Your task to perform on an android device: see tabs open on other devices in the chrome app Image 0: 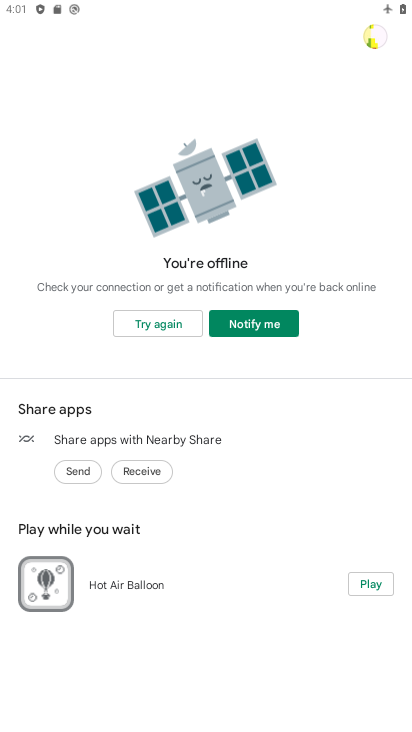
Step 0: press home button
Your task to perform on an android device: see tabs open on other devices in the chrome app Image 1: 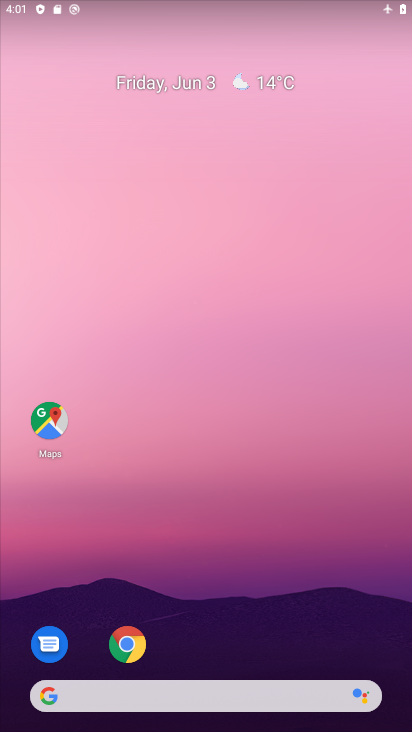
Step 1: click (126, 650)
Your task to perform on an android device: see tabs open on other devices in the chrome app Image 2: 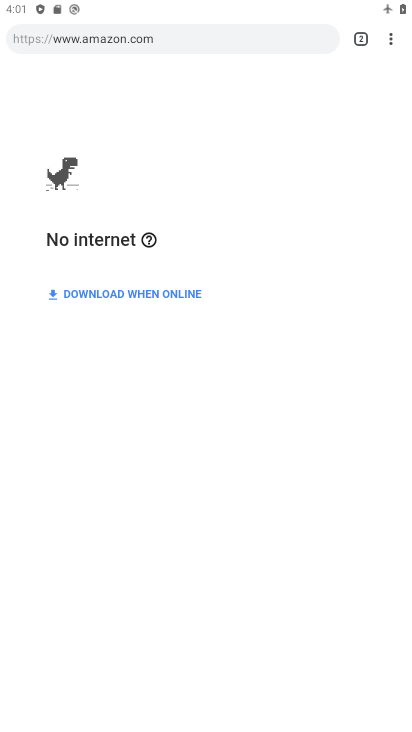
Step 2: click (392, 31)
Your task to perform on an android device: see tabs open on other devices in the chrome app Image 3: 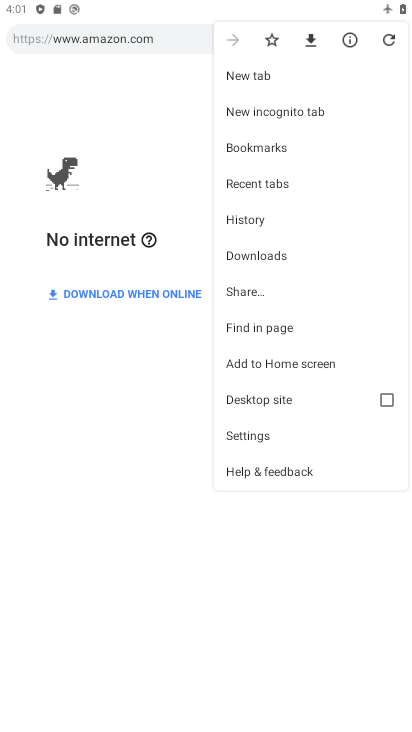
Step 3: click (310, 180)
Your task to perform on an android device: see tabs open on other devices in the chrome app Image 4: 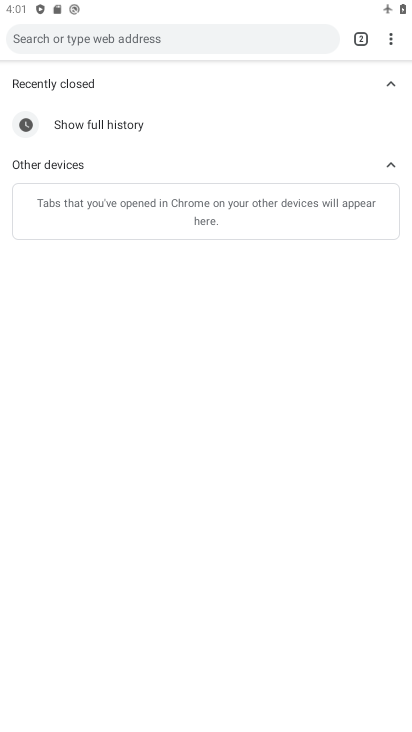
Step 4: task complete